Your task to perform on an android device: What is the news today? Image 0: 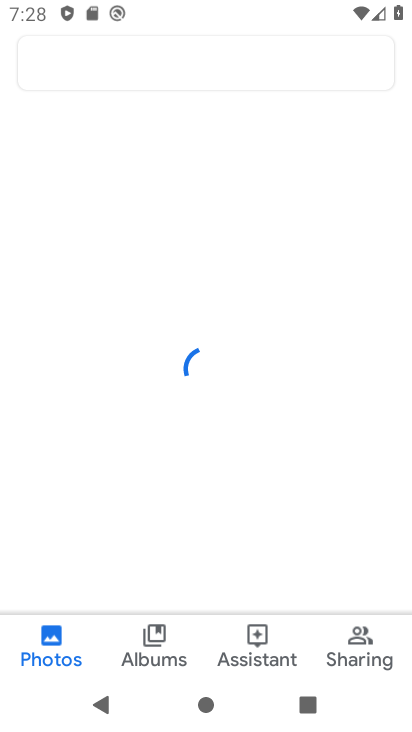
Step 0: press home button
Your task to perform on an android device: What is the news today? Image 1: 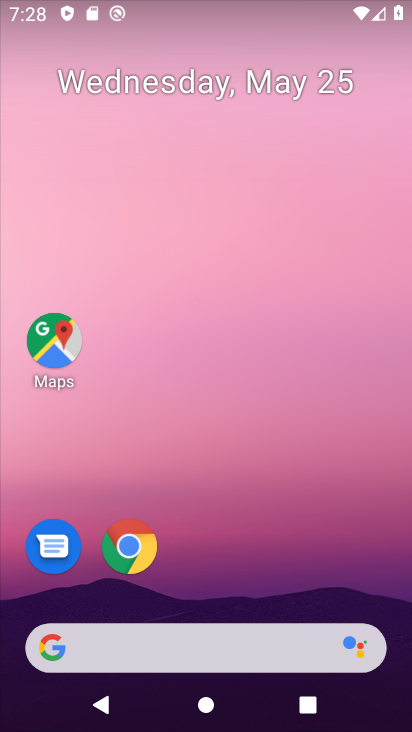
Step 1: task complete